Your task to perform on an android device: toggle show notifications on the lock screen Image 0: 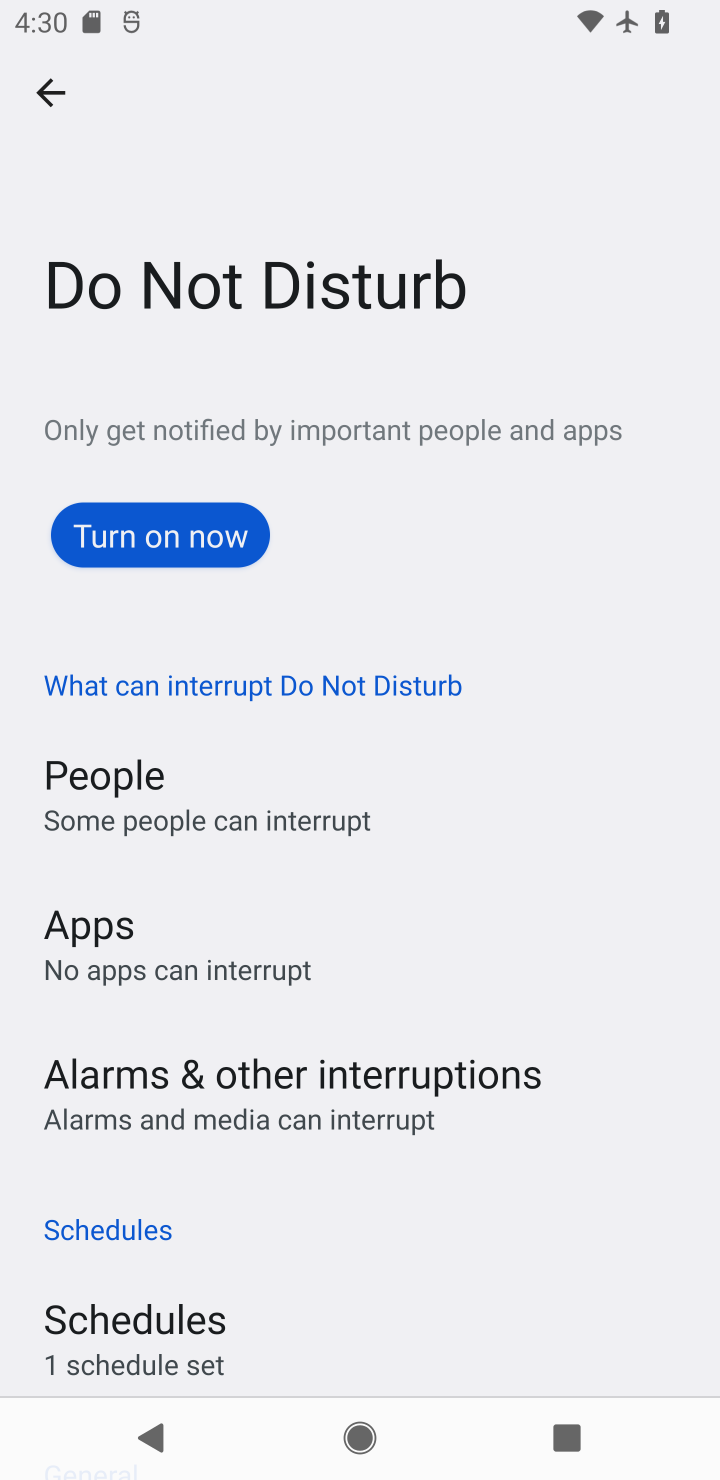
Step 0: click (40, 86)
Your task to perform on an android device: toggle show notifications on the lock screen Image 1: 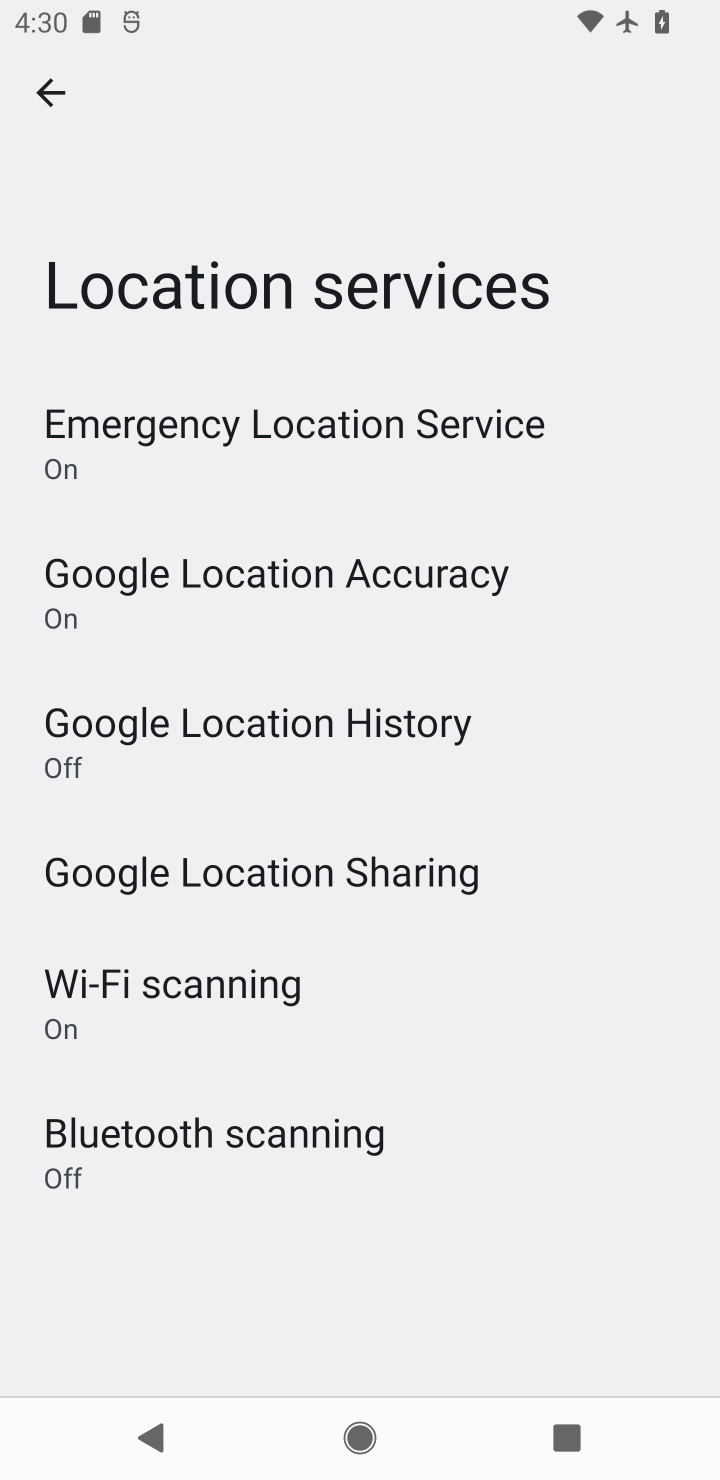
Step 1: click (40, 86)
Your task to perform on an android device: toggle show notifications on the lock screen Image 2: 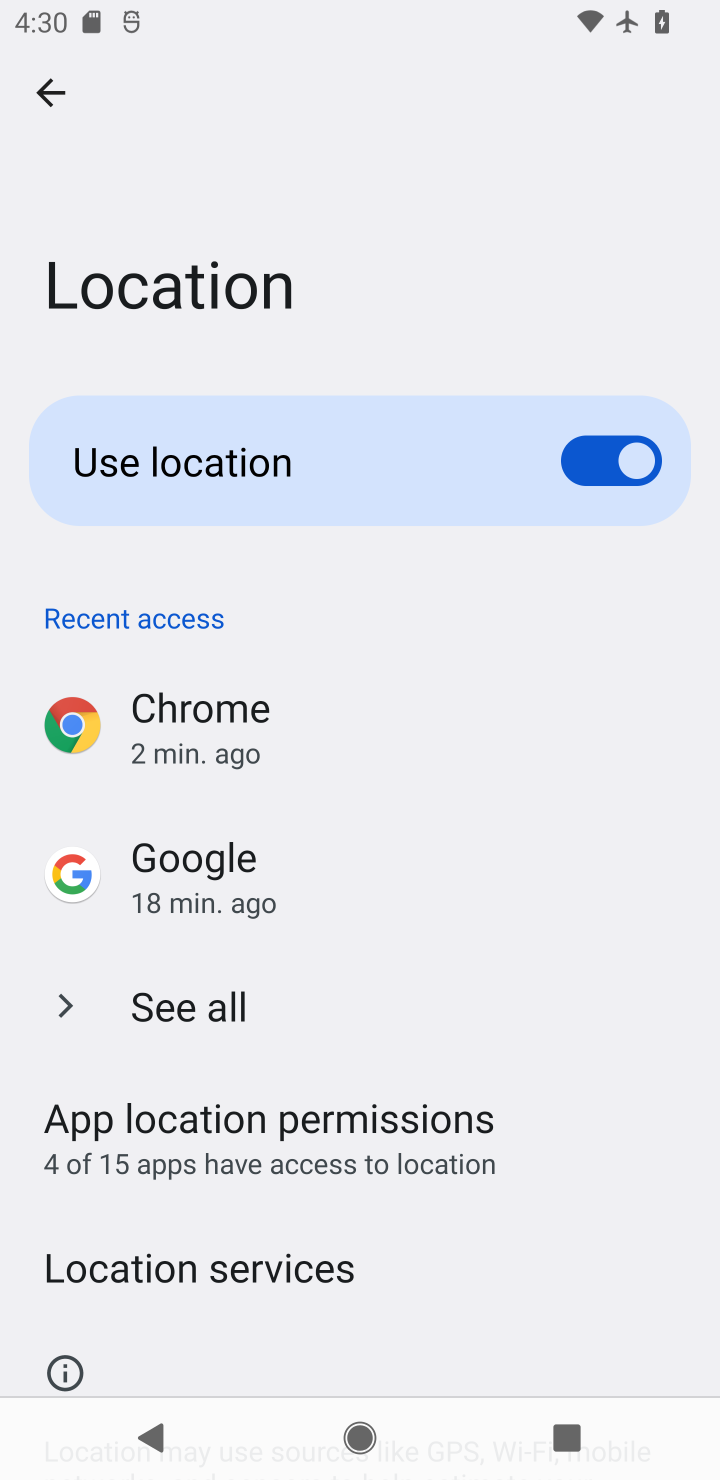
Step 2: click (28, 93)
Your task to perform on an android device: toggle show notifications on the lock screen Image 3: 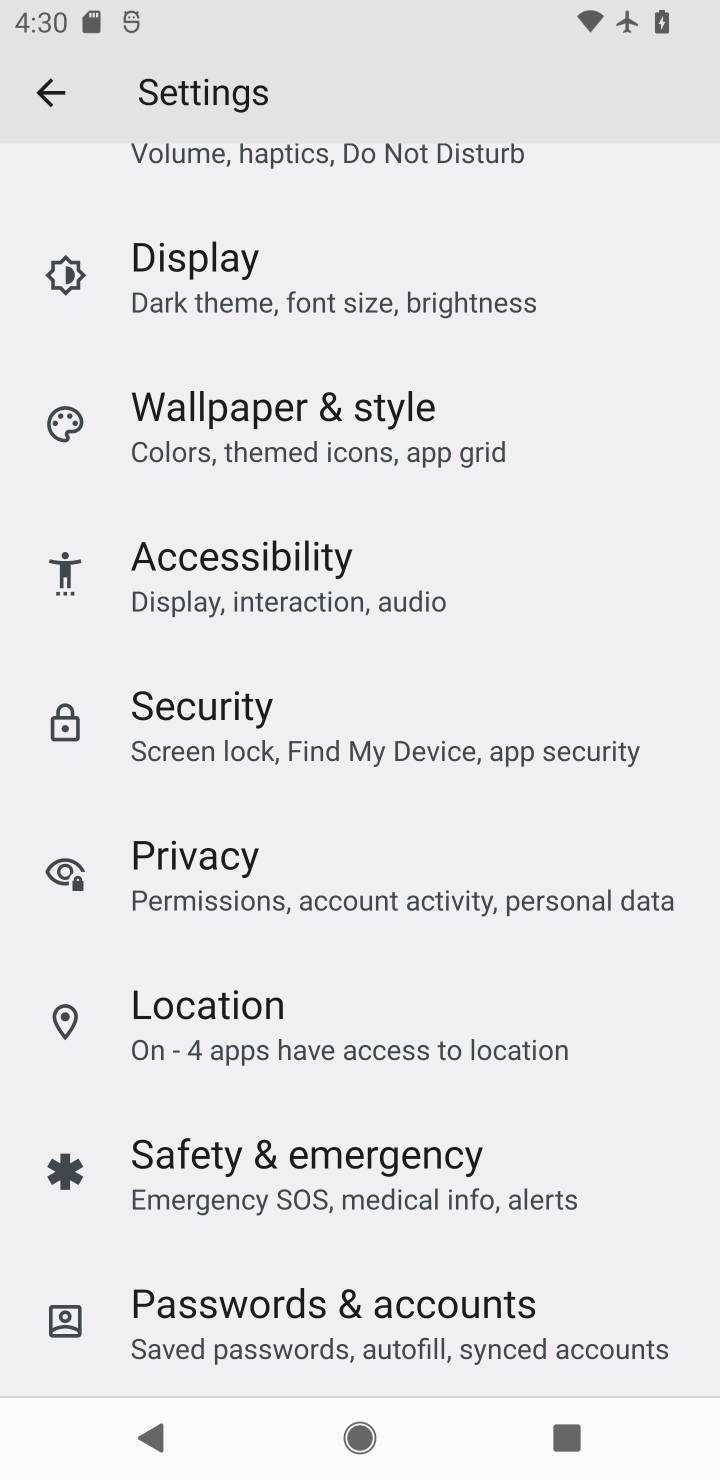
Step 3: drag from (331, 272) to (382, 1468)
Your task to perform on an android device: toggle show notifications on the lock screen Image 4: 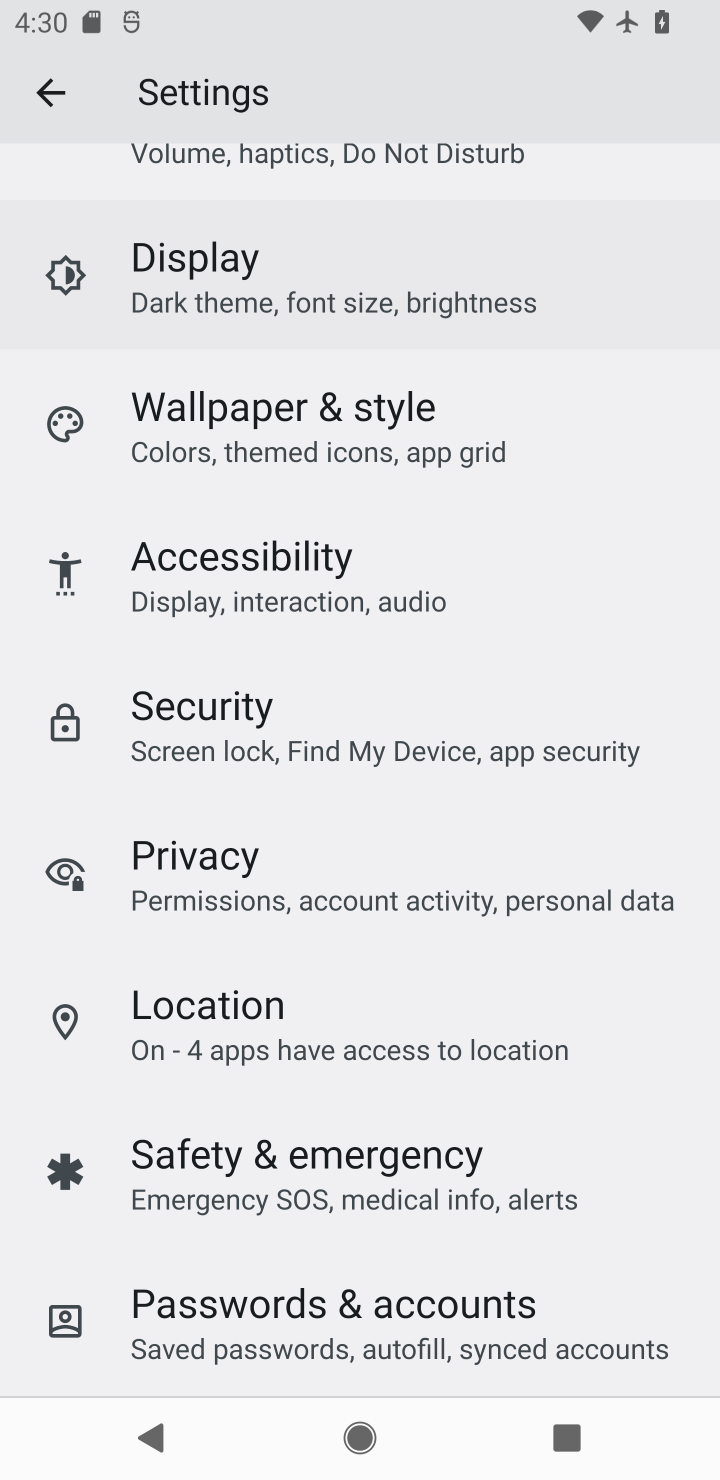
Step 4: drag from (176, 239) to (203, 1107)
Your task to perform on an android device: toggle show notifications on the lock screen Image 5: 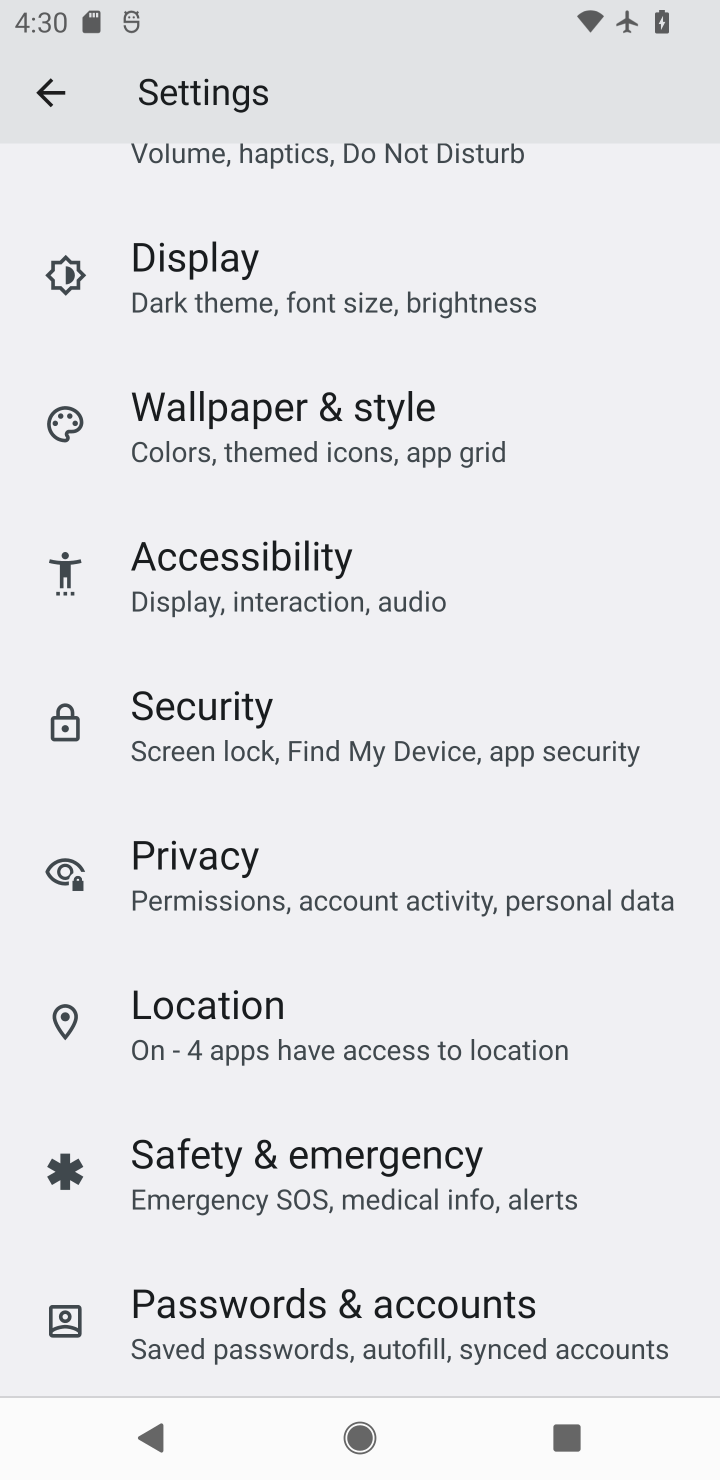
Step 5: drag from (281, 198) to (292, 1370)
Your task to perform on an android device: toggle show notifications on the lock screen Image 6: 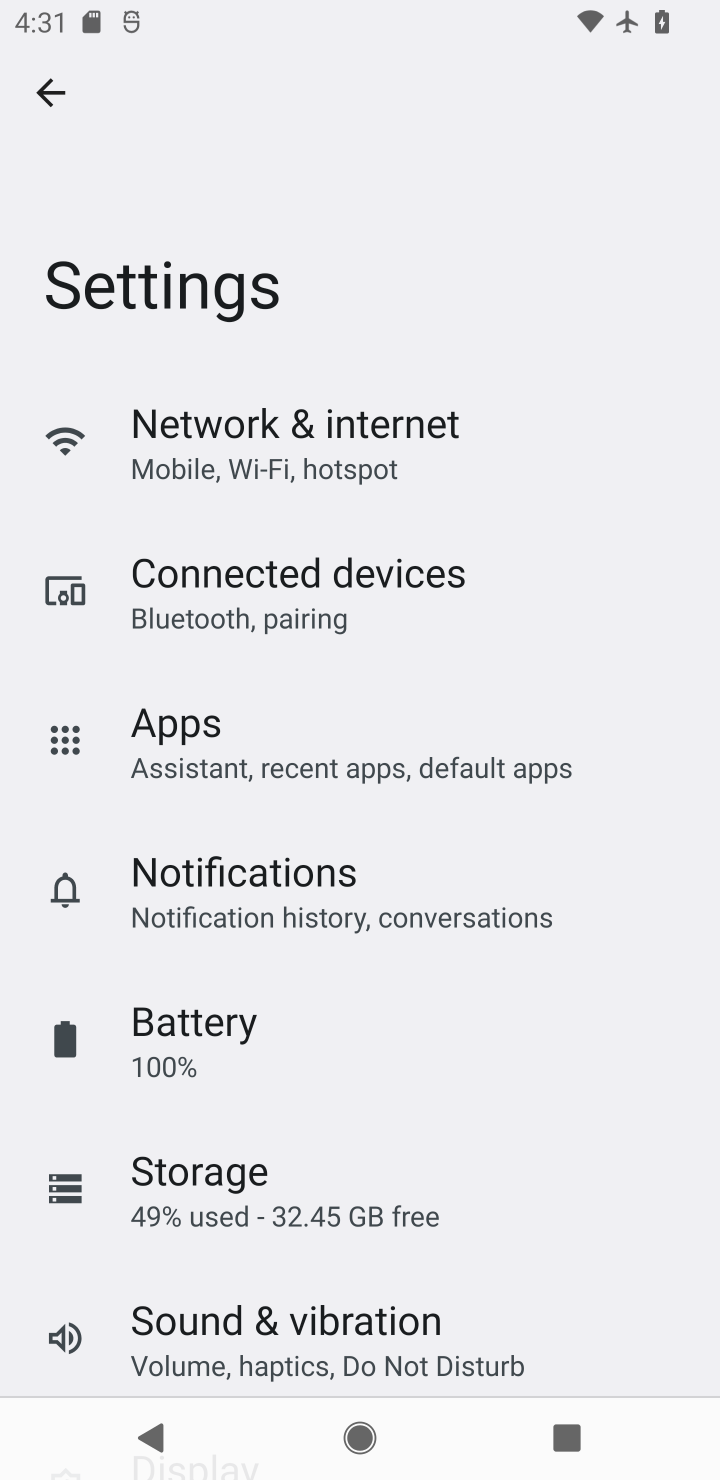
Step 6: click (291, 890)
Your task to perform on an android device: toggle show notifications on the lock screen Image 7: 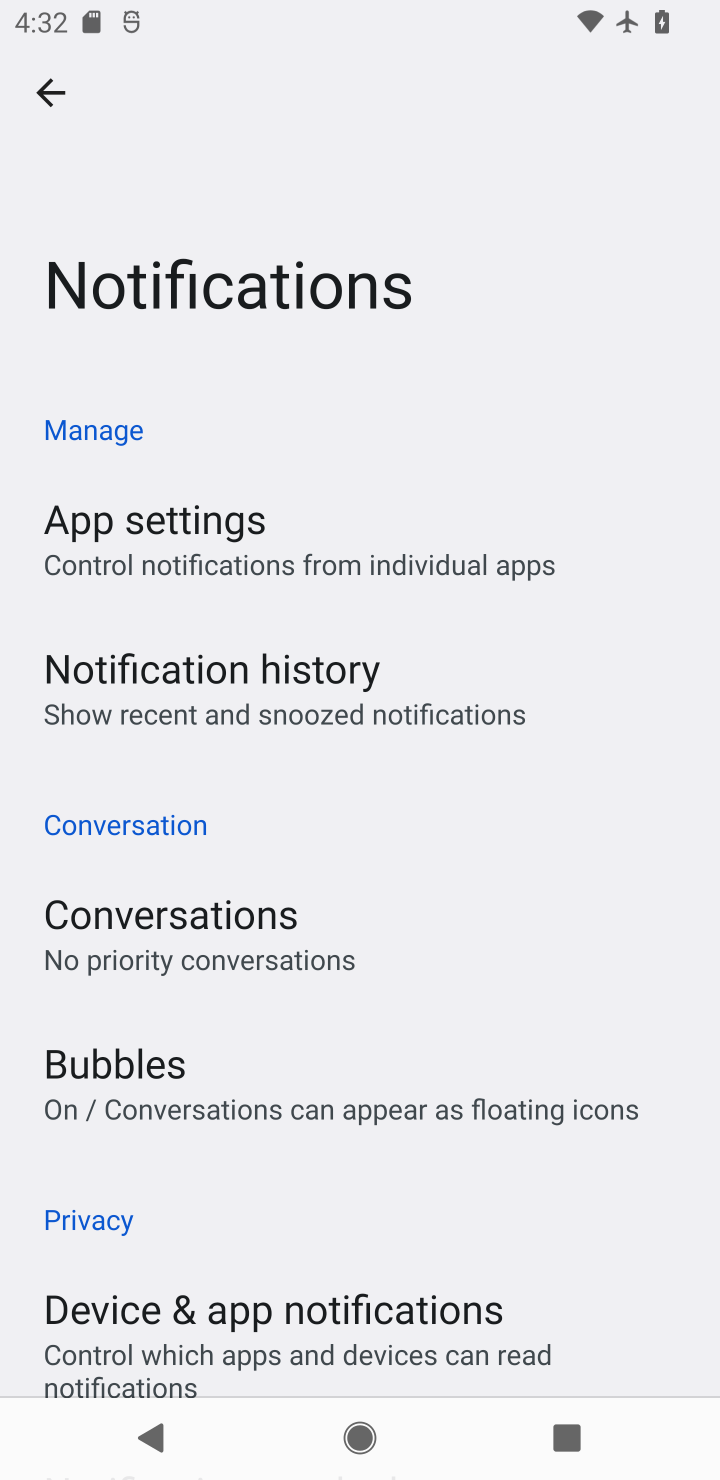
Step 7: drag from (290, 1367) to (371, 318)
Your task to perform on an android device: toggle show notifications on the lock screen Image 8: 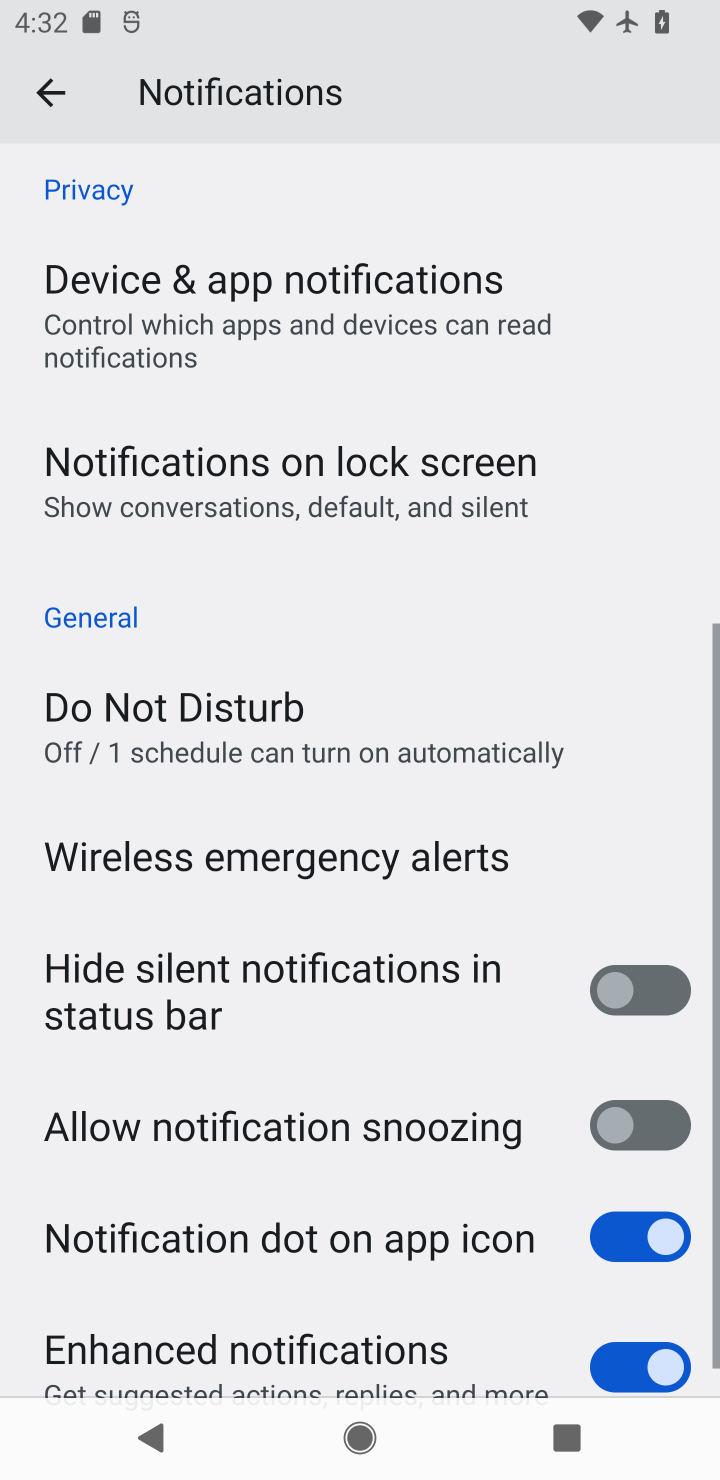
Step 8: drag from (280, 1323) to (358, 308)
Your task to perform on an android device: toggle show notifications on the lock screen Image 9: 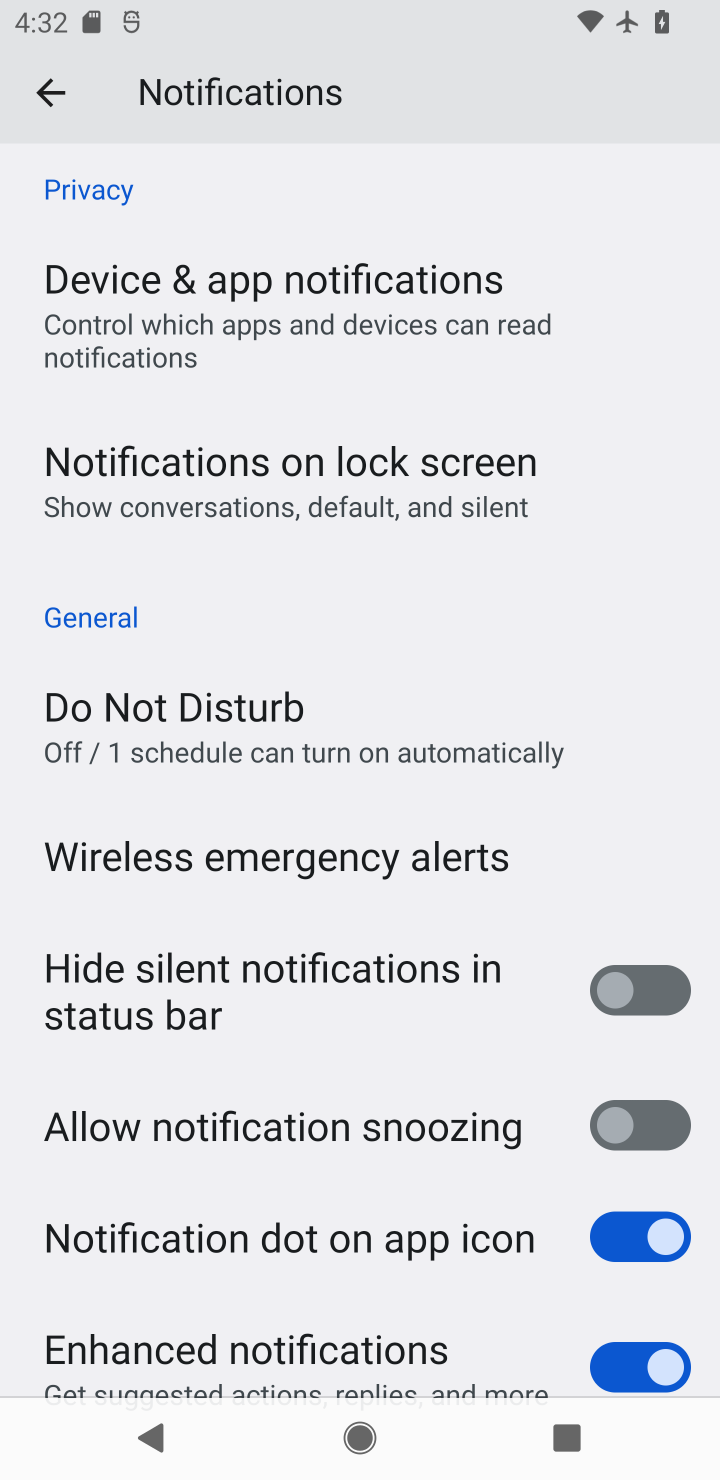
Step 9: click (342, 490)
Your task to perform on an android device: toggle show notifications on the lock screen Image 10: 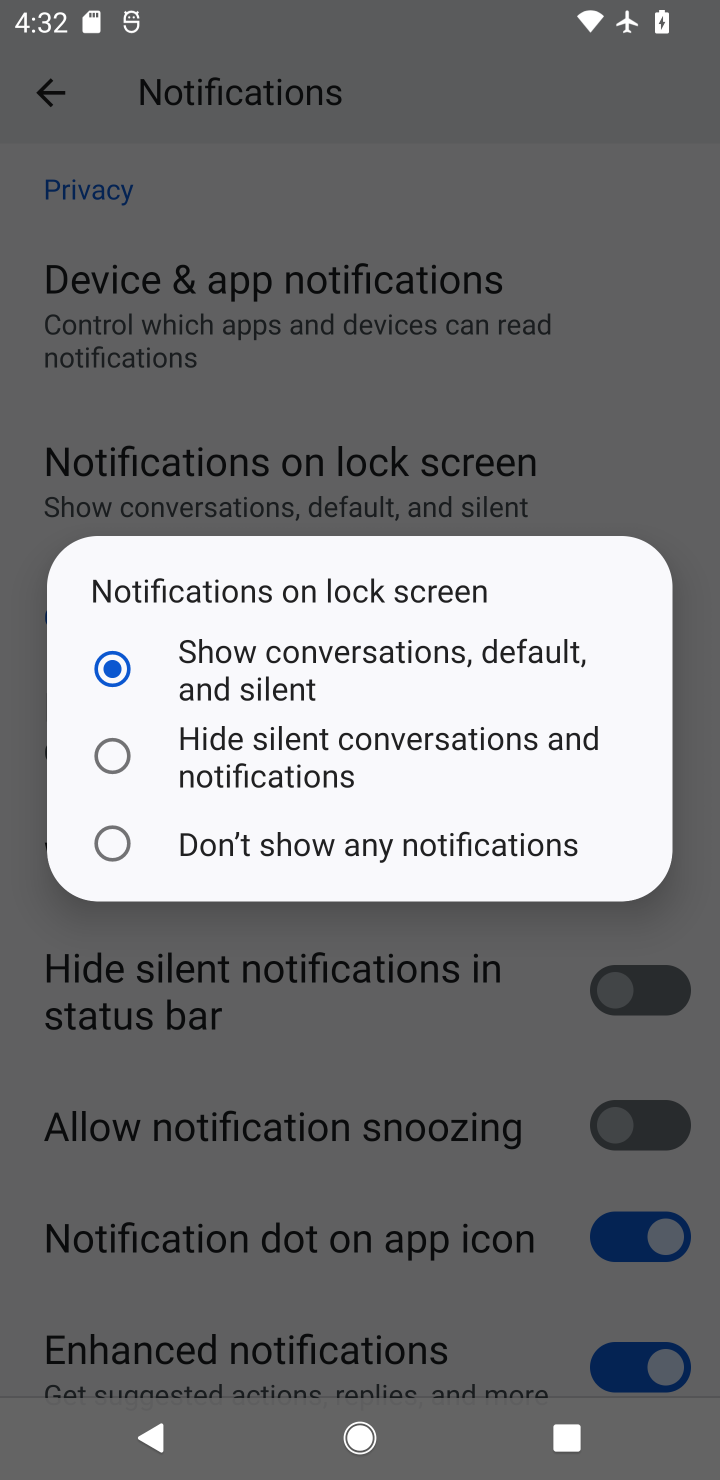
Step 10: click (255, 813)
Your task to perform on an android device: toggle show notifications on the lock screen Image 11: 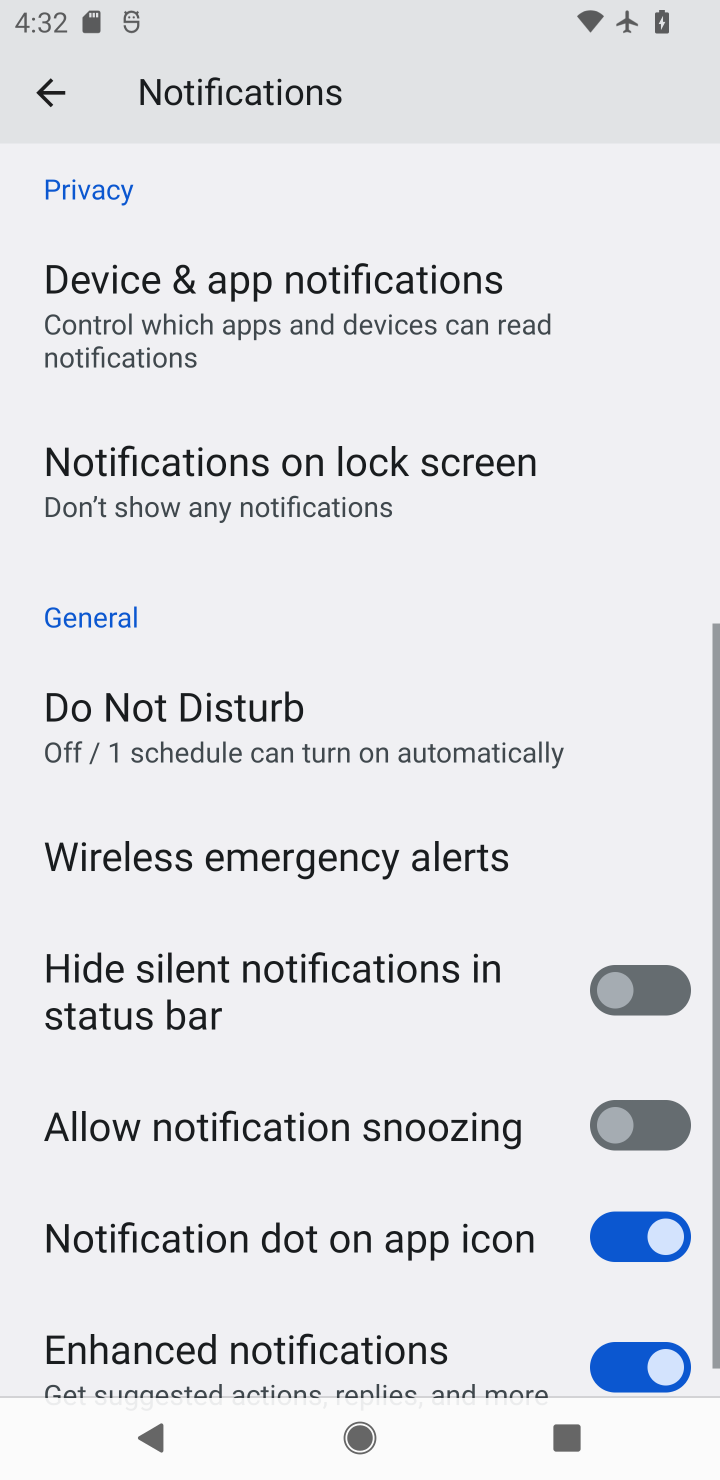
Step 11: task complete